Your task to perform on an android device: Go to CNN.com Image 0: 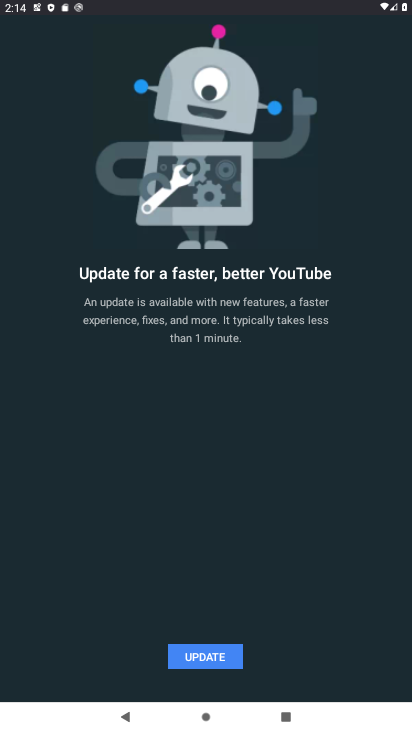
Step 0: press home button
Your task to perform on an android device: Go to CNN.com Image 1: 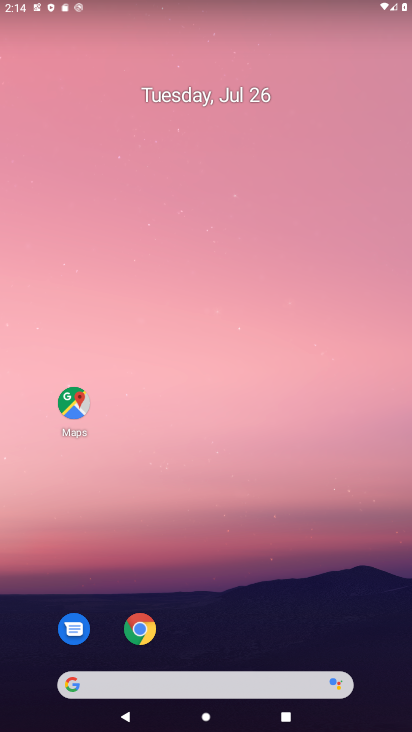
Step 1: click (136, 635)
Your task to perform on an android device: Go to CNN.com Image 2: 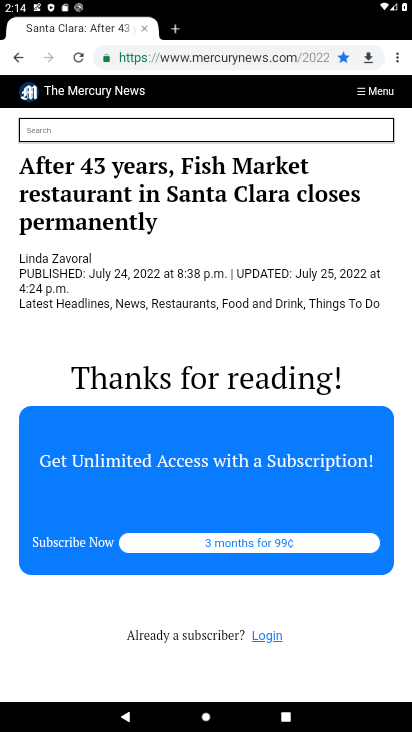
Step 2: click (184, 27)
Your task to perform on an android device: Go to CNN.com Image 3: 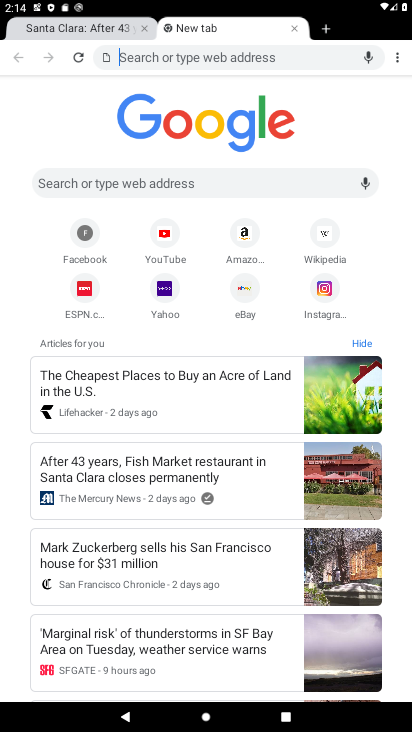
Step 3: click (131, 176)
Your task to perform on an android device: Go to CNN.com Image 4: 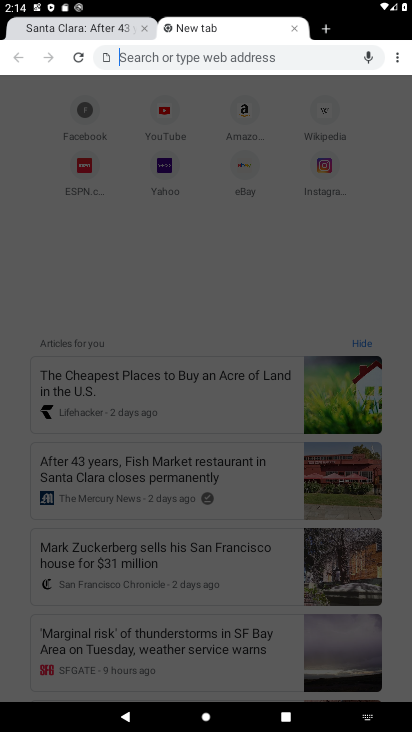
Step 4: type "CNN.com"
Your task to perform on an android device: Go to CNN.com Image 5: 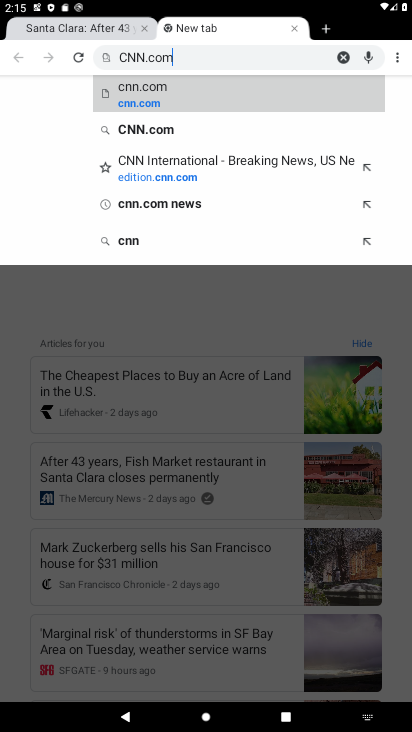
Step 5: type ""
Your task to perform on an android device: Go to CNN.com Image 6: 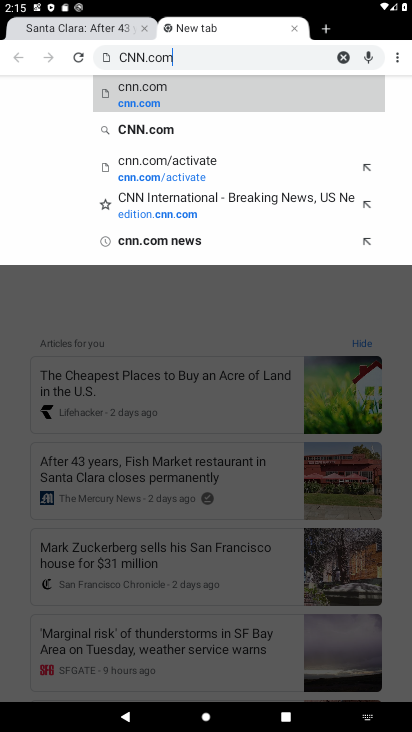
Step 6: click (180, 114)
Your task to perform on an android device: Go to CNN.com Image 7: 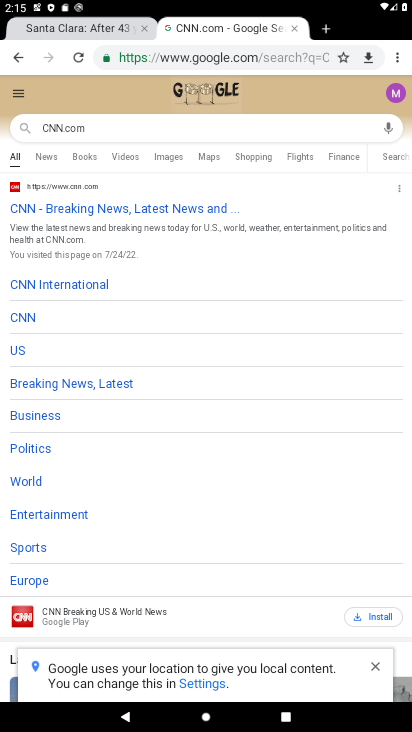
Step 7: task complete